Your task to perform on an android device: What's the weather? Image 0: 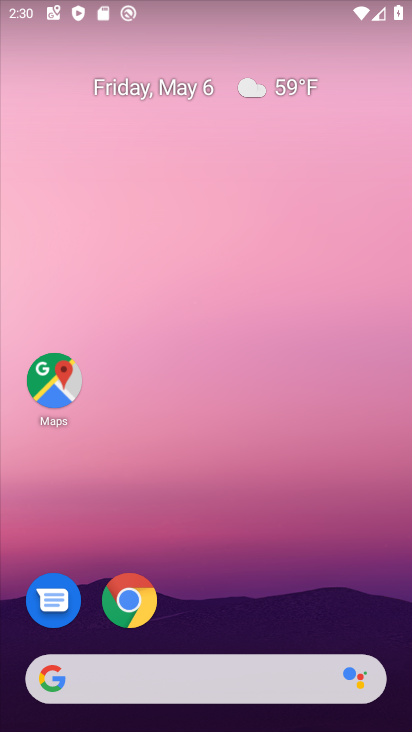
Step 0: drag from (221, 590) to (253, 107)
Your task to perform on an android device: What's the weather? Image 1: 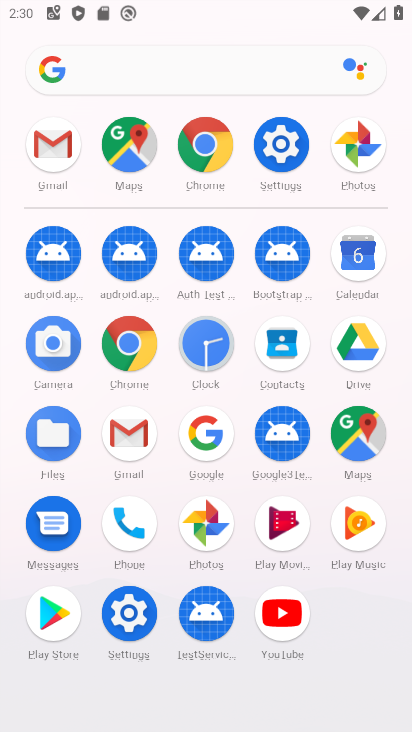
Step 1: click (206, 434)
Your task to perform on an android device: What's the weather? Image 2: 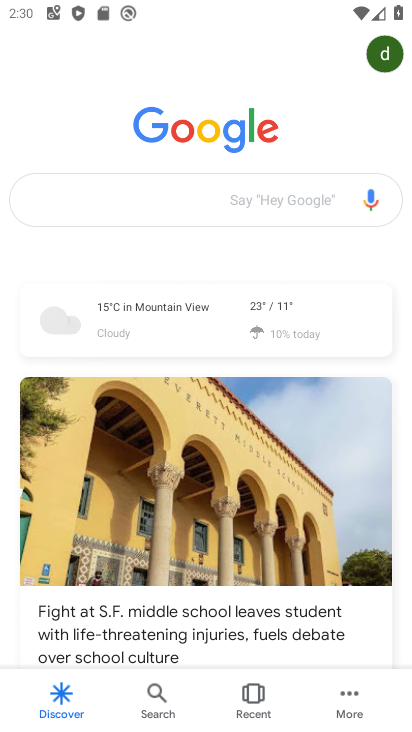
Step 2: click (150, 203)
Your task to perform on an android device: What's the weather? Image 3: 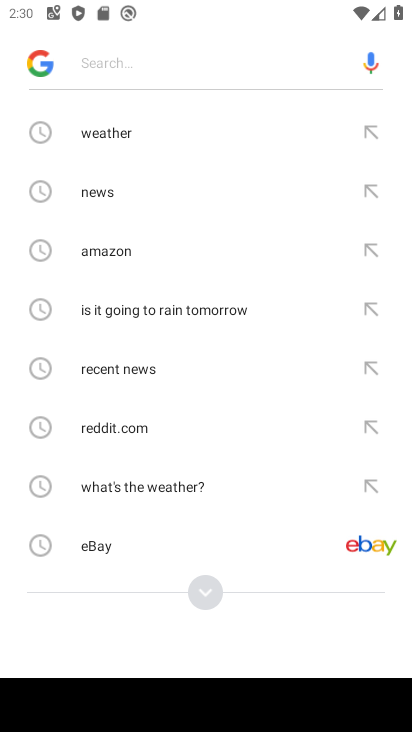
Step 3: click (130, 134)
Your task to perform on an android device: What's the weather? Image 4: 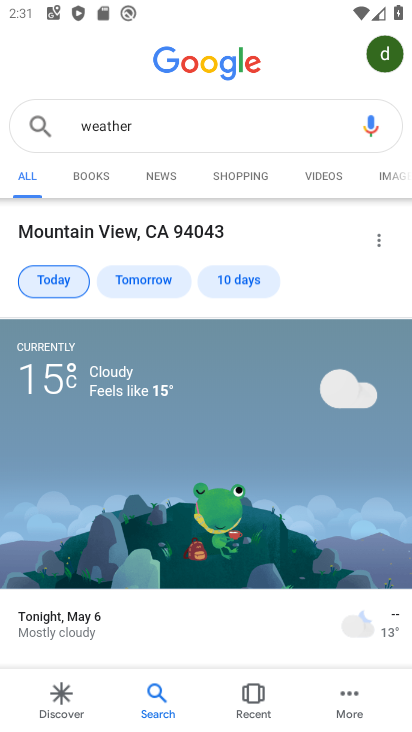
Step 4: task complete